Your task to perform on an android device: open chrome privacy settings Image 0: 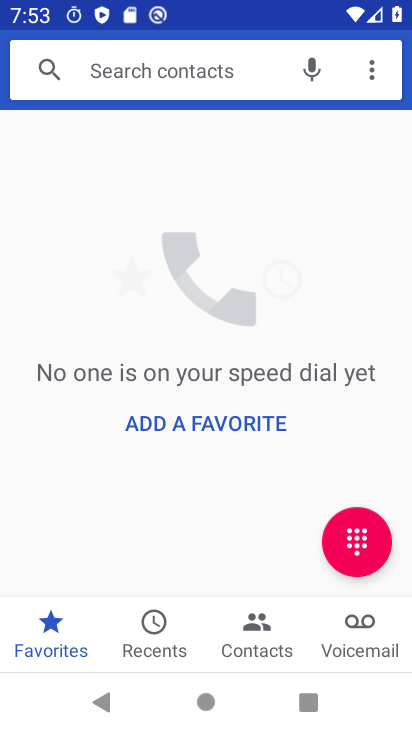
Step 0: press home button
Your task to perform on an android device: open chrome privacy settings Image 1: 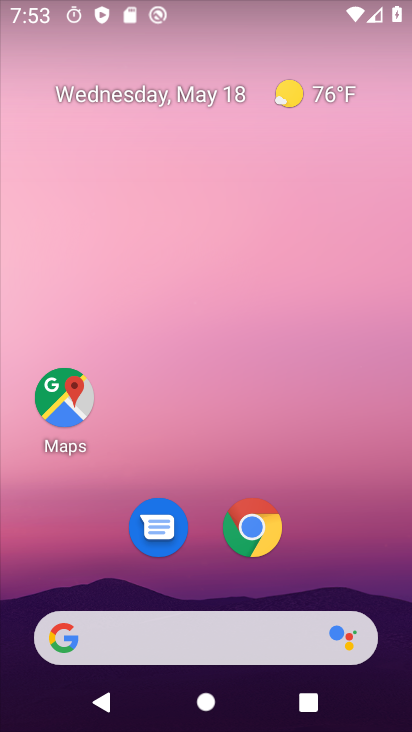
Step 1: click (248, 533)
Your task to perform on an android device: open chrome privacy settings Image 2: 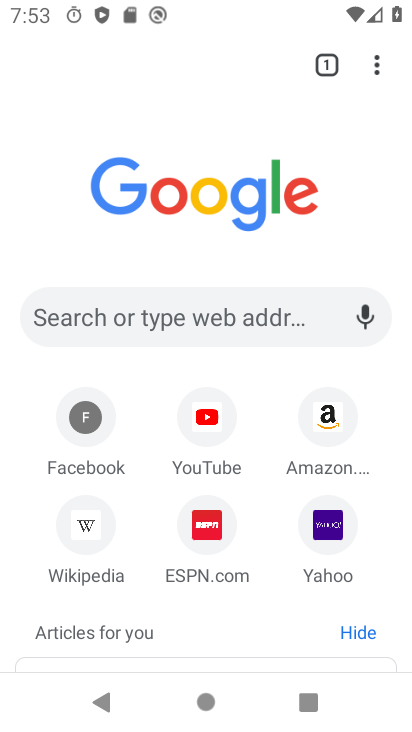
Step 2: click (374, 61)
Your task to perform on an android device: open chrome privacy settings Image 3: 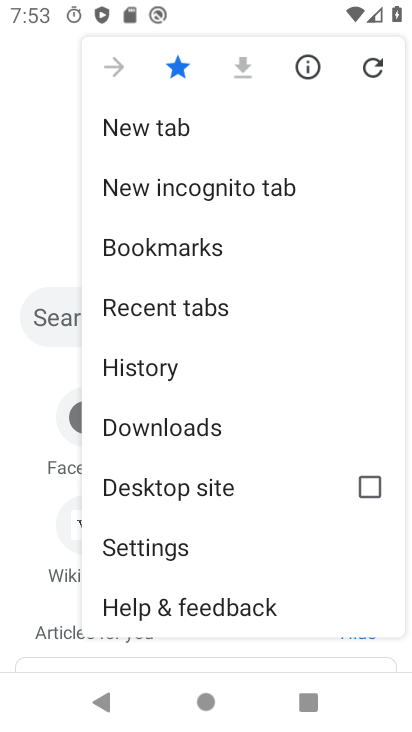
Step 3: click (149, 547)
Your task to perform on an android device: open chrome privacy settings Image 4: 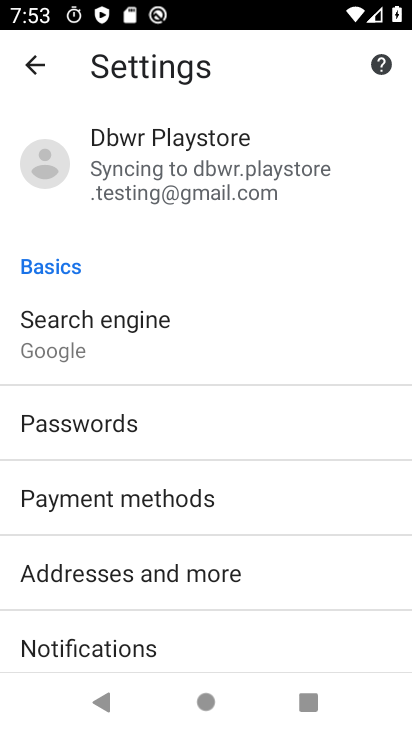
Step 4: drag from (278, 635) to (313, 118)
Your task to perform on an android device: open chrome privacy settings Image 5: 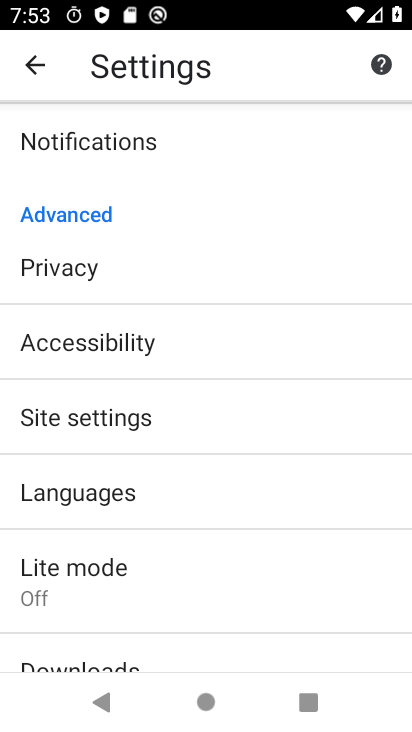
Step 5: drag from (316, 627) to (321, 193)
Your task to perform on an android device: open chrome privacy settings Image 6: 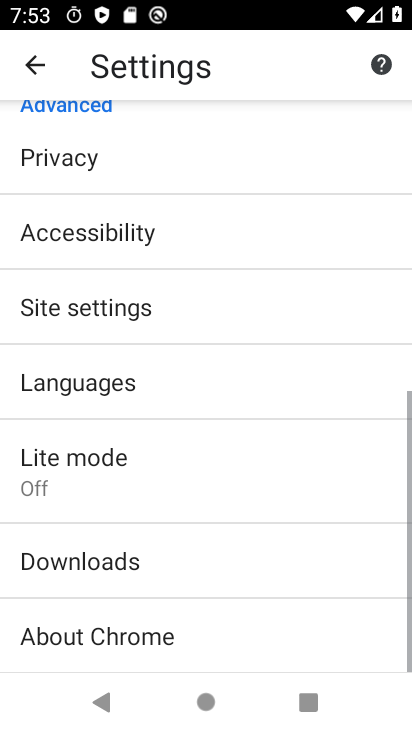
Step 6: click (68, 160)
Your task to perform on an android device: open chrome privacy settings Image 7: 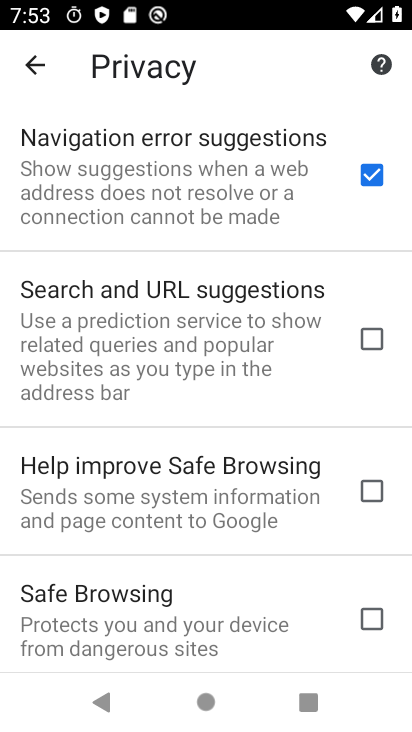
Step 7: task complete